Your task to perform on an android device: turn on improve location accuracy Image 0: 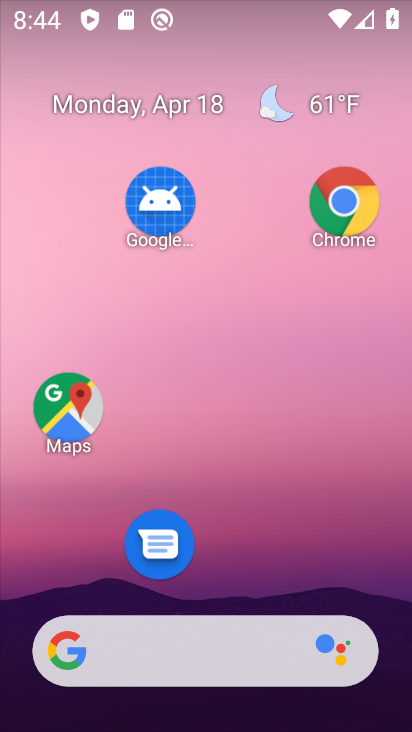
Step 0: drag from (231, 596) to (161, 29)
Your task to perform on an android device: turn on improve location accuracy Image 1: 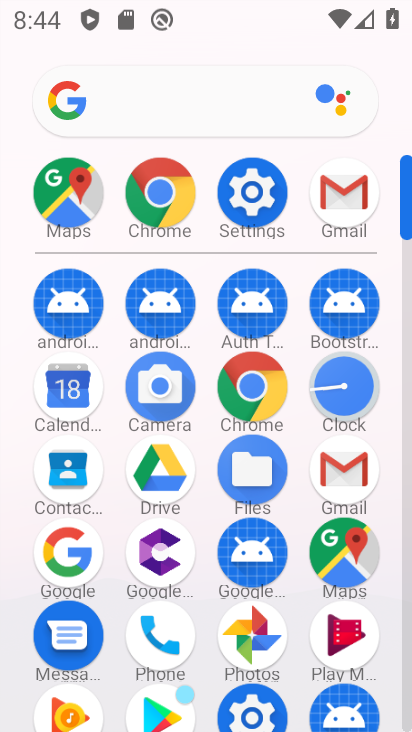
Step 1: click (260, 195)
Your task to perform on an android device: turn on improve location accuracy Image 2: 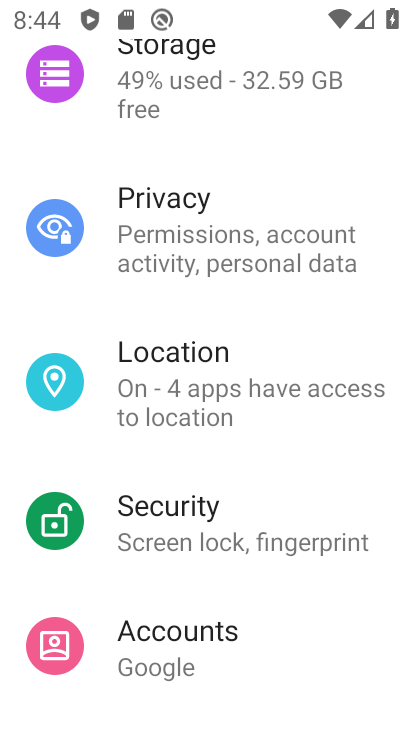
Step 2: click (254, 388)
Your task to perform on an android device: turn on improve location accuracy Image 3: 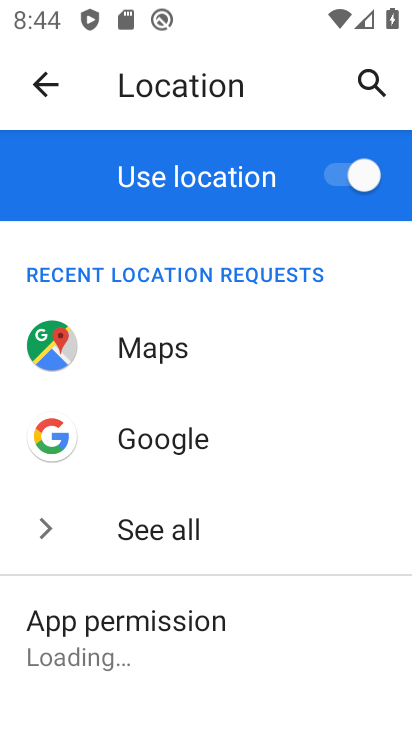
Step 3: drag from (238, 599) to (182, 199)
Your task to perform on an android device: turn on improve location accuracy Image 4: 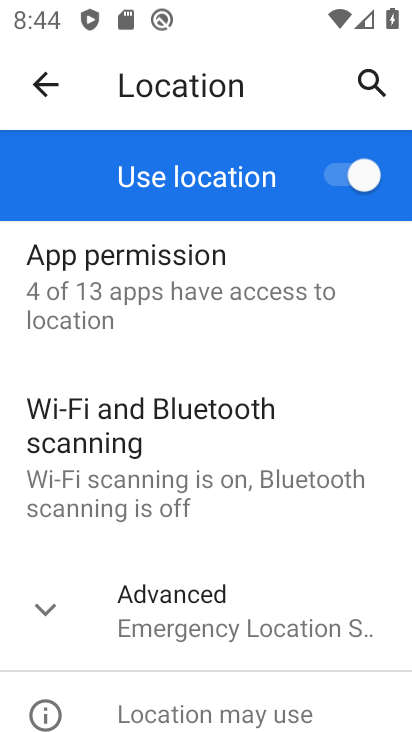
Step 4: click (209, 598)
Your task to perform on an android device: turn on improve location accuracy Image 5: 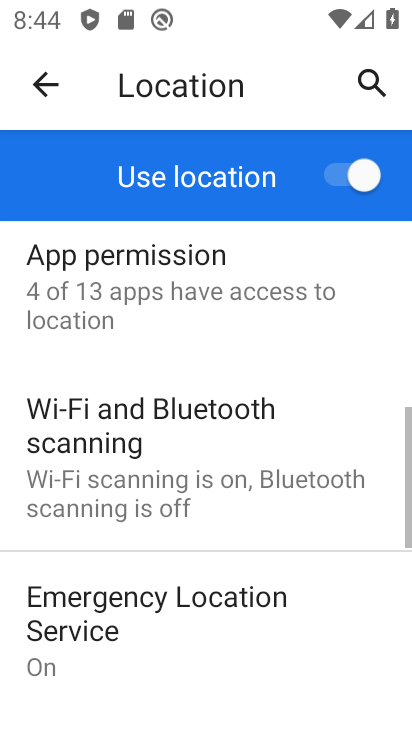
Step 5: drag from (246, 584) to (182, 85)
Your task to perform on an android device: turn on improve location accuracy Image 6: 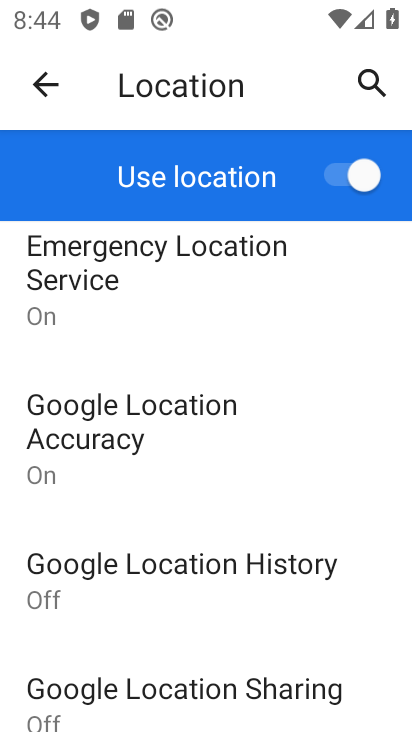
Step 6: click (163, 410)
Your task to perform on an android device: turn on improve location accuracy Image 7: 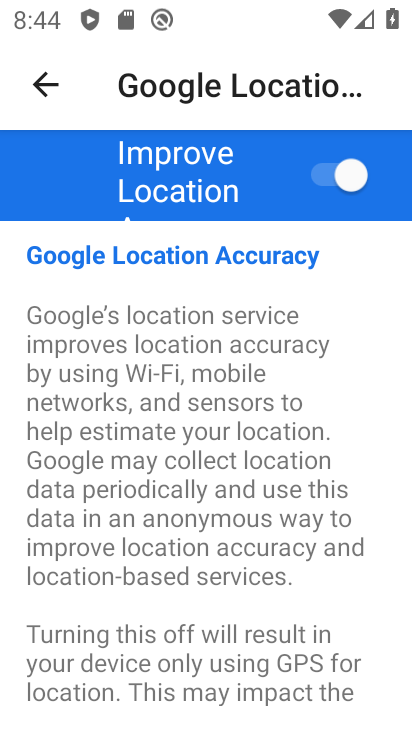
Step 7: task complete